Your task to perform on an android device: Open settings Image 0: 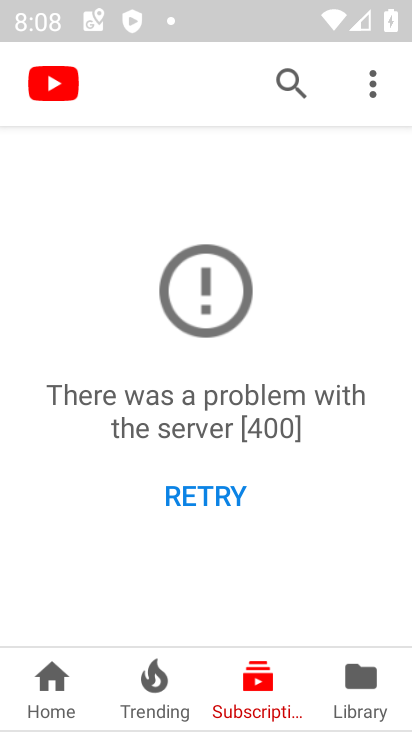
Step 0: press home button
Your task to perform on an android device: Open settings Image 1: 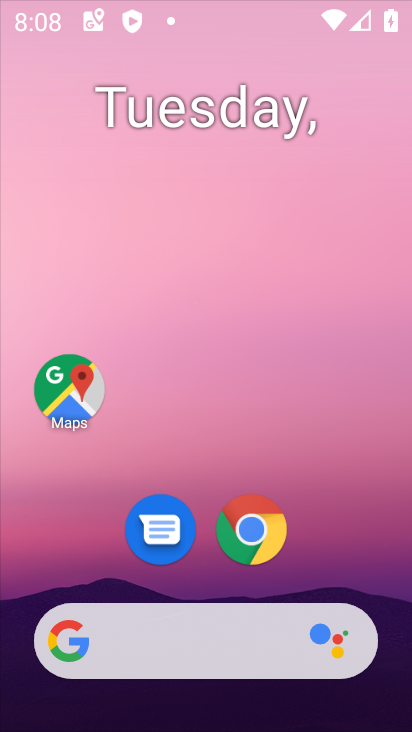
Step 1: drag from (222, 682) to (219, 105)
Your task to perform on an android device: Open settings Image 2: 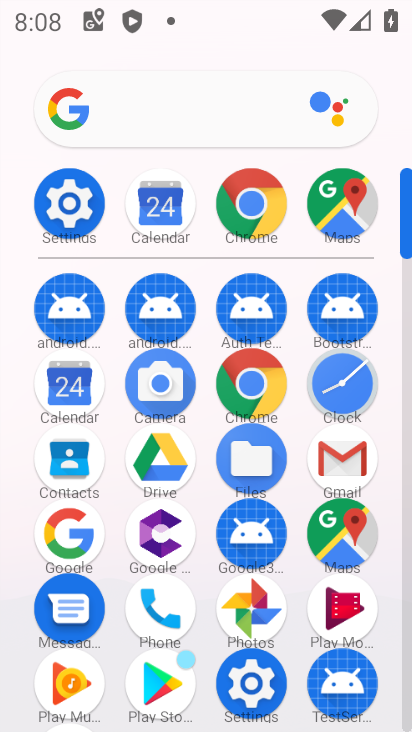
Step 2: drag from (192, 444) to (245, 74)
Your task to perform on an android device: Open settings Image 3: 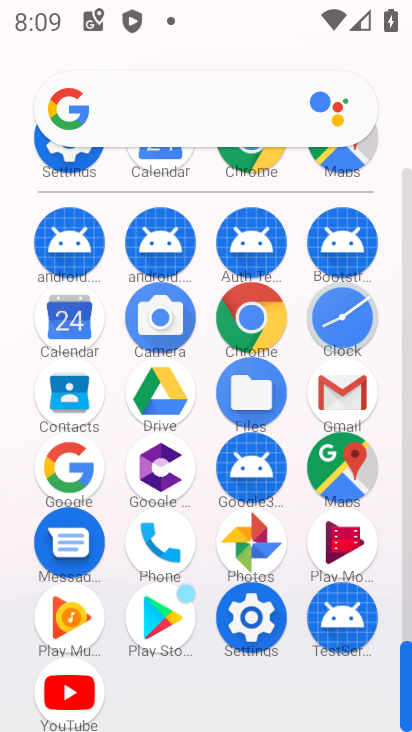
Step 3: click (259, 643)
Your task to perform on an android device: Open settings Image 4: 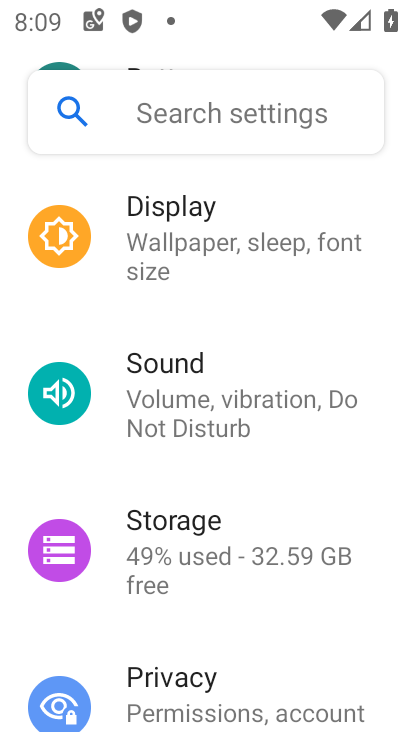
Step 4: task complete